Your task to perform on an android device: Go to Reddit.com Image 0: 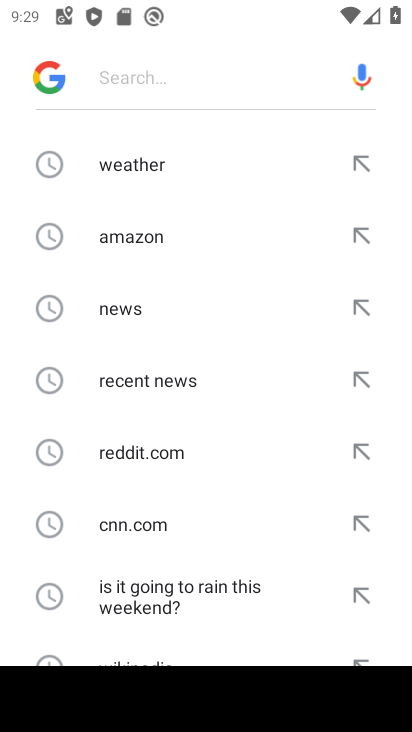
Step 0: click (235, 450)
Your task to perform on an android device: Go to Reddit.com Image 1: 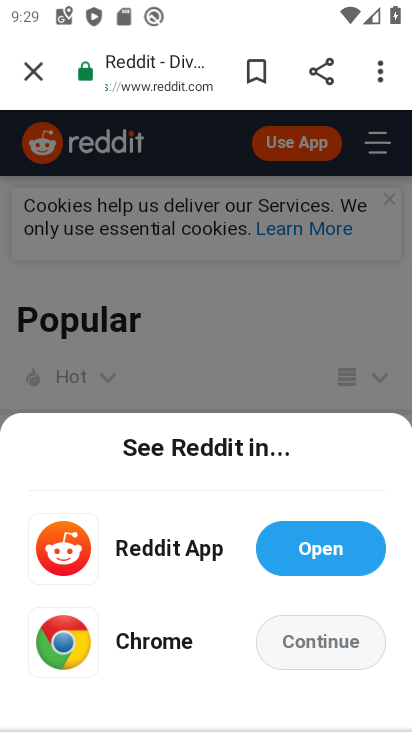
Step 1: task complete